Your task to perform on an android device: refresh tabs in the chrome app Image 0: 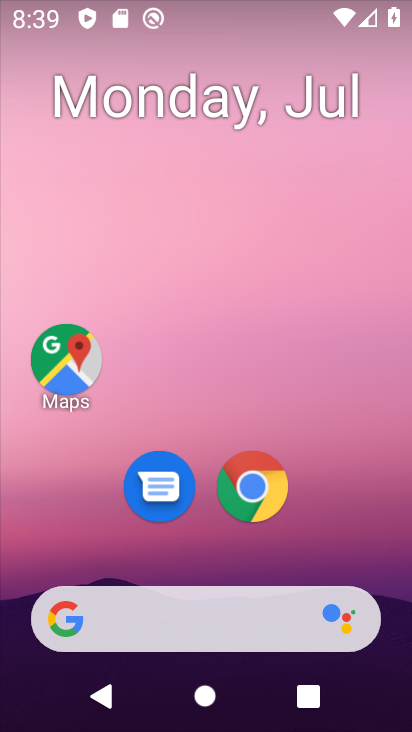
Step 0: click (259, 479)
Your task to perform on an android device: refresh tabs in the chrome app Image 1: 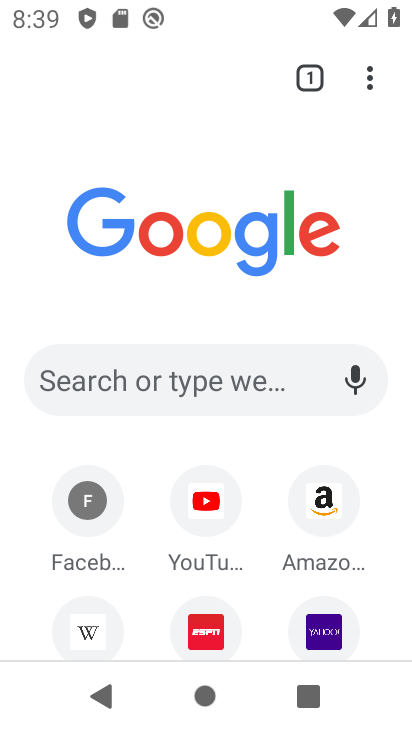
Step 1: click (373, 67)
Your task to perform on an android device: refresh tabs in the chrome app Image 2: 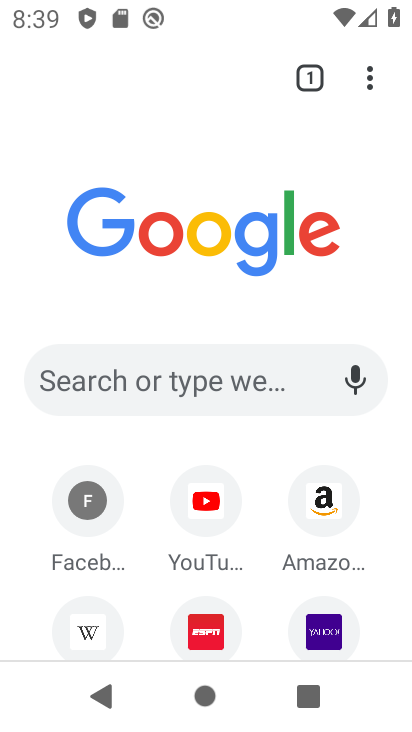
Step 2: task complete